Your task to perform on an android device: set default search engine in the chrome app Image 0: 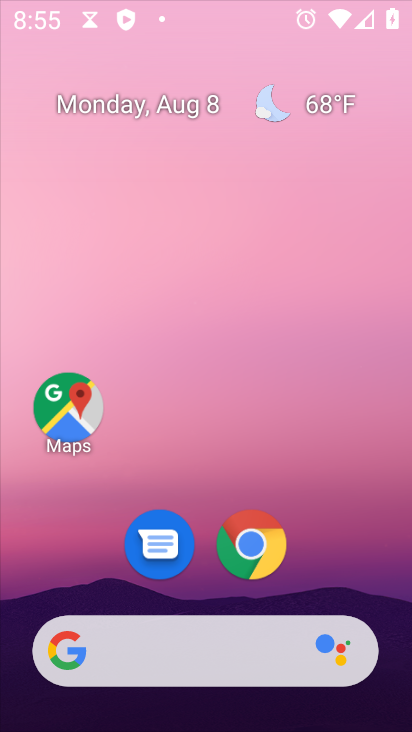
Step 0: press home button
Your task to perform on an android device: set default search engine in the chrome app Image 1: 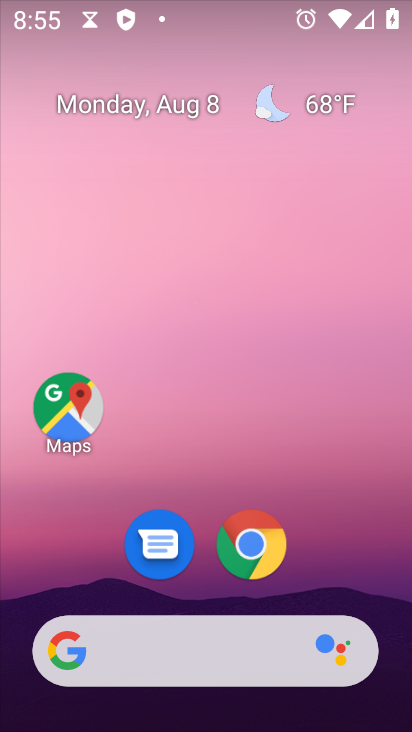
Step 1: drag from (310, 576) to (284, 44)
Your task to perform on an android device: set default search engine in the chrome app Image 2: 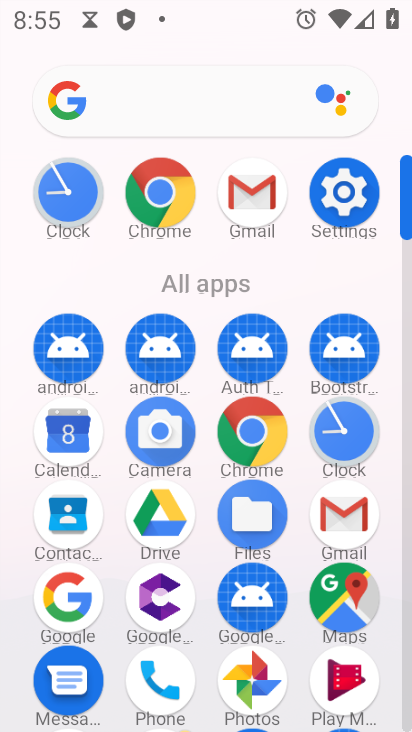
Step 2: click (156, 189)
Your task to perform on an android device: set default search engine in the chrome app Image 3: 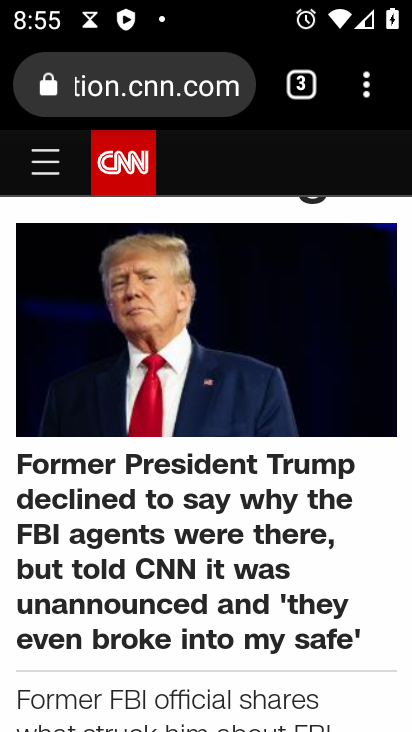
Step 3: click (363, 91)
Your task to perform on an android device: set default search engine in the chrome app Image 4: 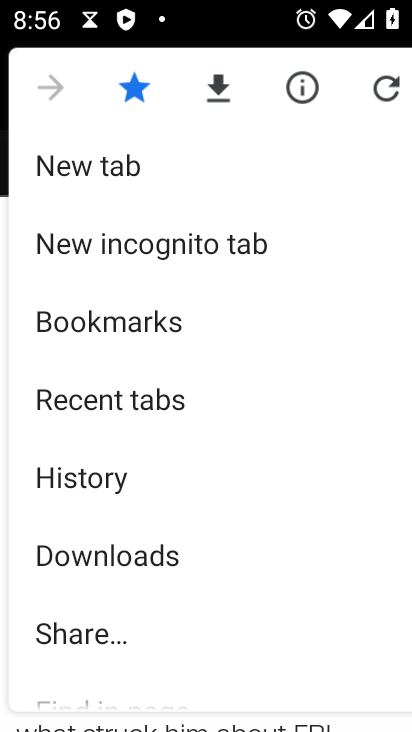
Step 4: drag from (189, 639) to (213, 123)
Your task to perform on an android device: set default search engine in the chrome app Image 5: 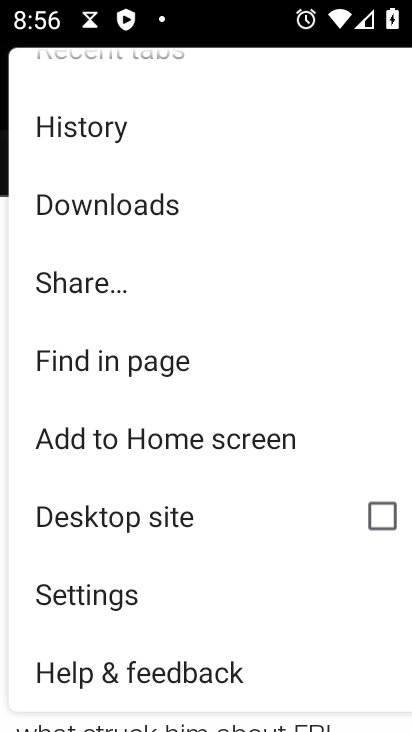
Step 5: click (151, 595)
Your task to perform on an android device: set default search engine in the chrome app Image 6: 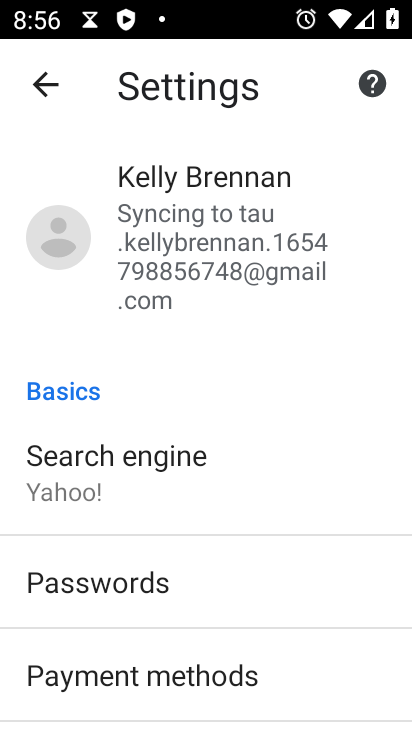
Step 6: drag from (227, 617) to (252, 157)
Your task to perform on an android device: set default search engine in the chrome app Image 7: 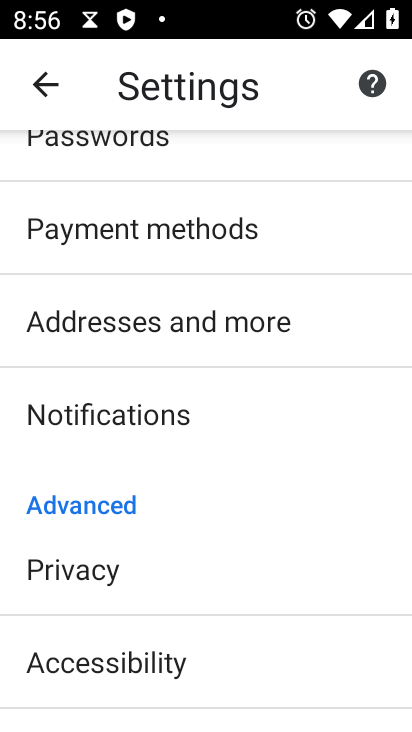
Step 7: drag from (204, 247) to (193, 655)
Your task to perform on an android device: set default search engine in the chrome app Image 8: 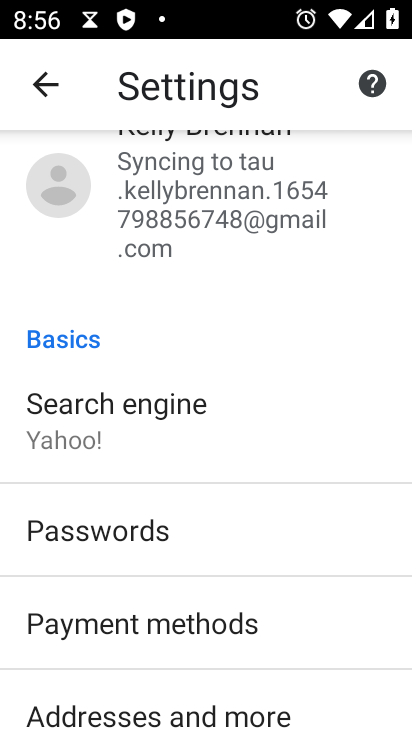
Step 8: click (138, 439)
Your task to perform on an android device: set default search engine in the chrome app Image 9: 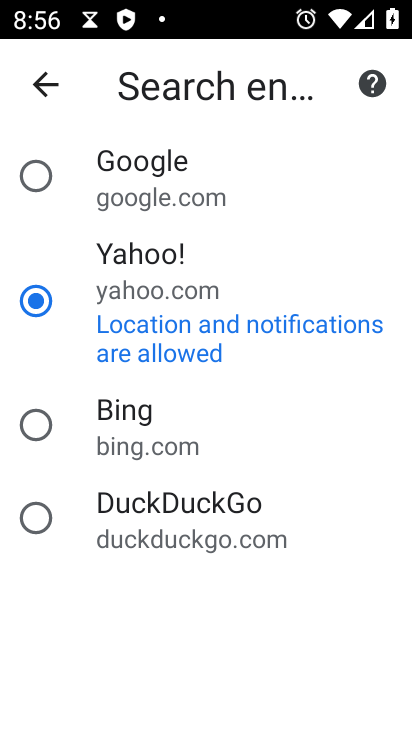
Step 9: click (34, 181)
Your task to perform on an android device: set default search engine in the chrome app Image 10: 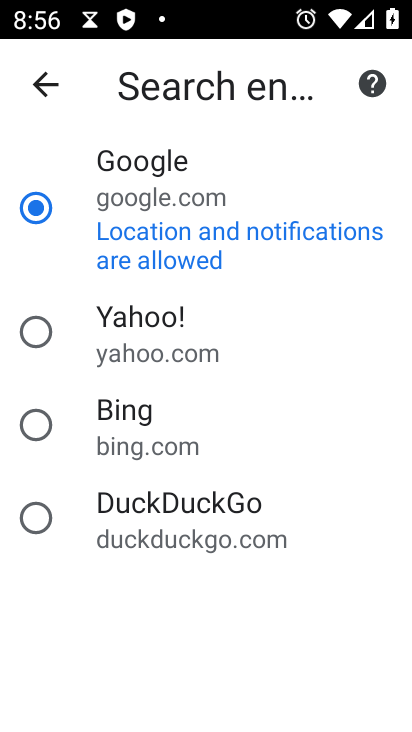
Step 10: task complete